Your task to perform on an android device: turn off priority inbox in the gmail app Image 0: 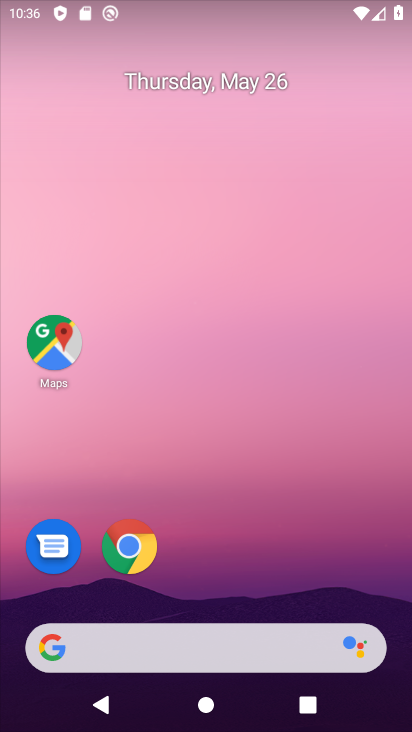
Step 0: drag from (279, 584) to (253, 229)
Your task to perform on an android device: turn off priority inbox in the gmail app Image 1: 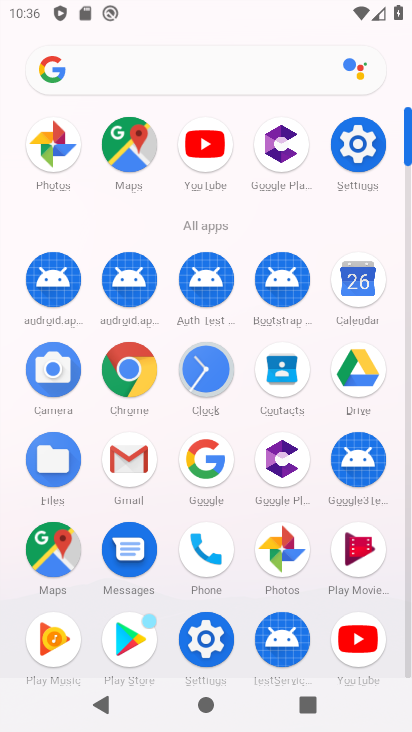
Step 1: drag from (243, 217) to (224, 63)
Your task to perform on an android device: turn off priority inbox in the gmail app Image 2: 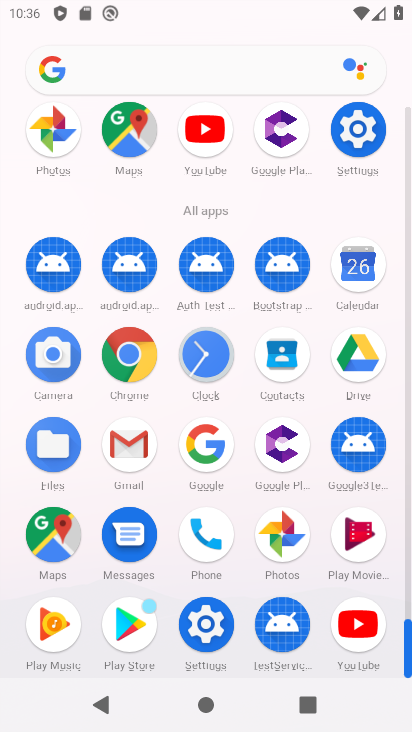
Step 2: click (134, 448)
Your task to perform on an android device: turn off priority inbox in the gmail app Image 3: 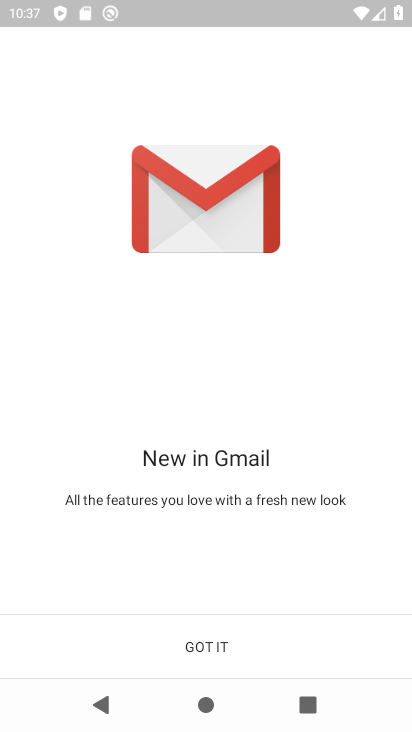
Step 3: click (219, 634)
Your task to perform on an android device: turn off priority inbox in the gmail app Image 4: 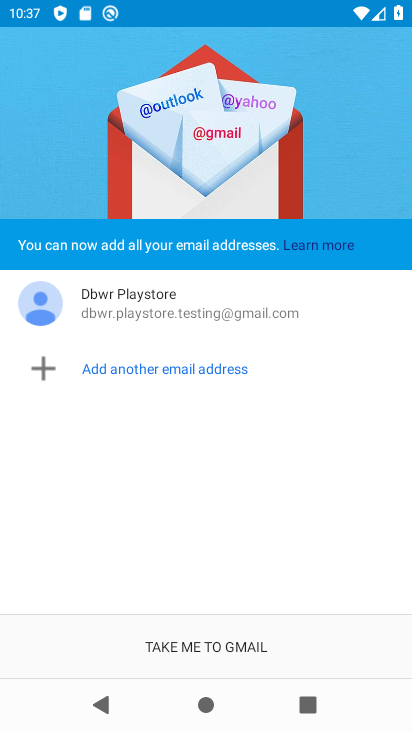
Step 4: click (222, 643)
Your task to perform on an android device: turn off priority inbox in the gmail app Image 5: 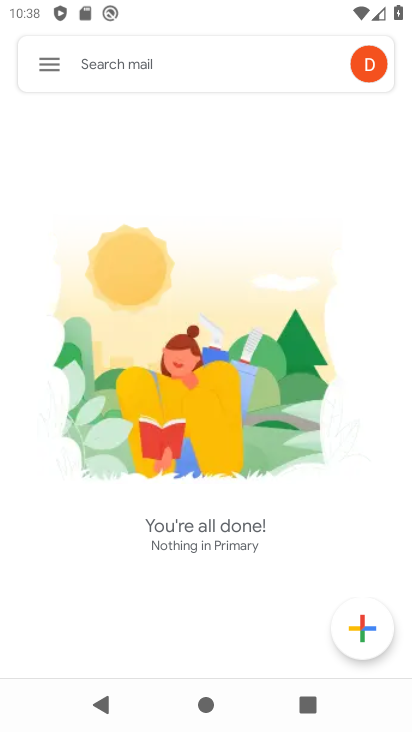
Step 5: click (43, 65)
Your task to perform on an android device: turn off priority inbox in the gmail app Image 6: 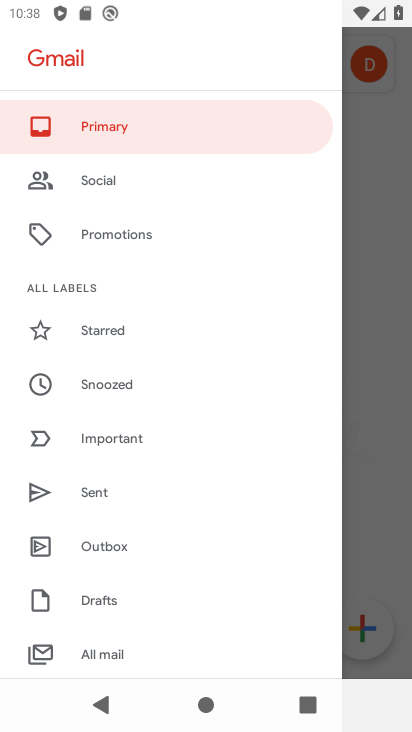
Step 6: drag from (160, 534) to (253, 159)
Your task to perform on an android device: turn off priority inbox in the gmail app Image 7: 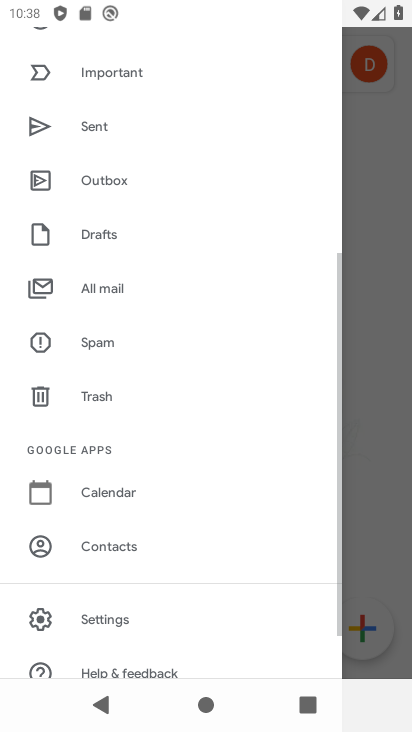
Step 7: drag from (174, 540) to (264, 171)
Your task to perform on an android device: turn off priority inbox in the gmail app Image 8: 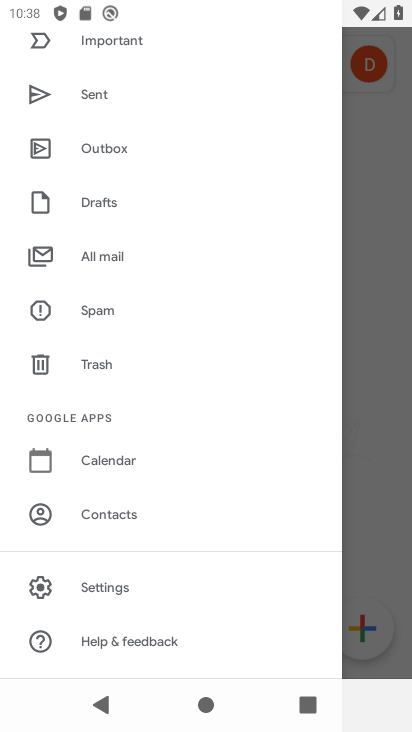
Step 8: click (148, 594)
Your task to perform on an android device: turn off priority inbox in the gmail app Image 9: 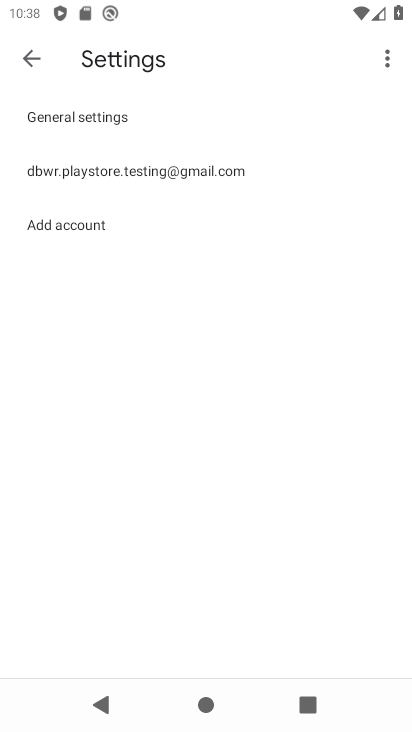
Step 9: click (205, 181)
Your task to perform on an android device: turn off priority inbox in the gmail app Image 10: 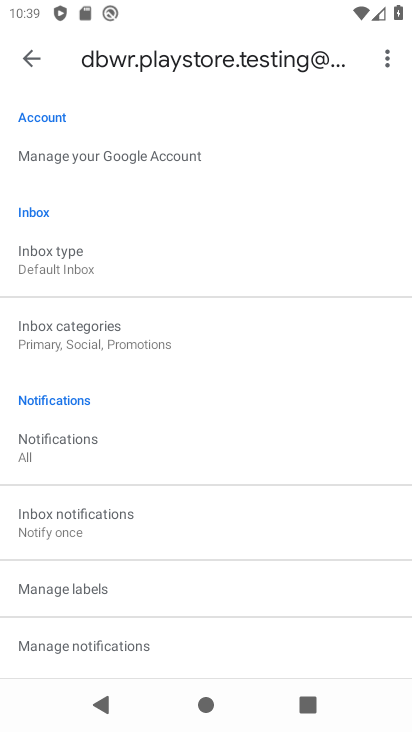
Step 10: drag from (178, 553) to (214, 224)
Your task to perform on an android device: turn off priority inbox in the gmail app Image 11: 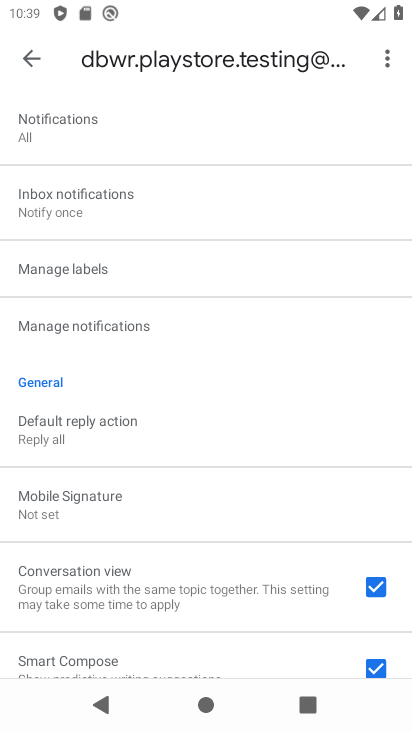
Step 11: drag from (209, 243) to (230, 467)
Your task to perform on an android device: turn off priority inbox in the gmail app Image 12: 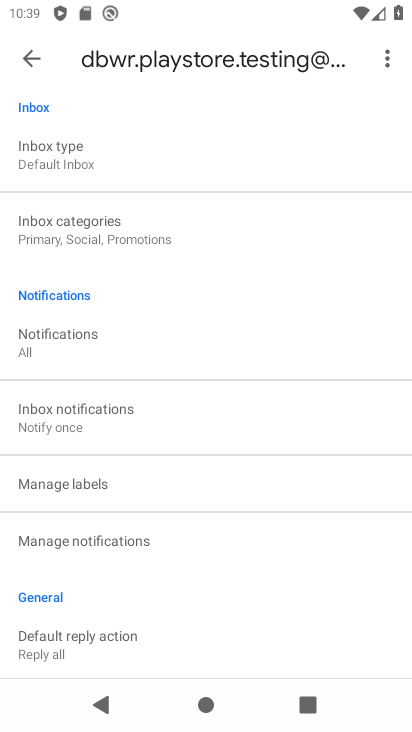
Step 12: click (153, 169)
Your task to perform on an android device: turn off priority inbox in the gmail app Image 13: 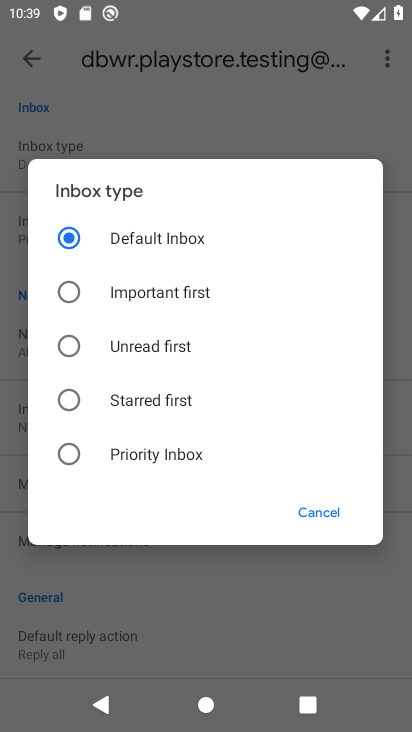
Step 13: task complete